Your task to perform on an android device: Check the settings for the Twitter app Image 0: 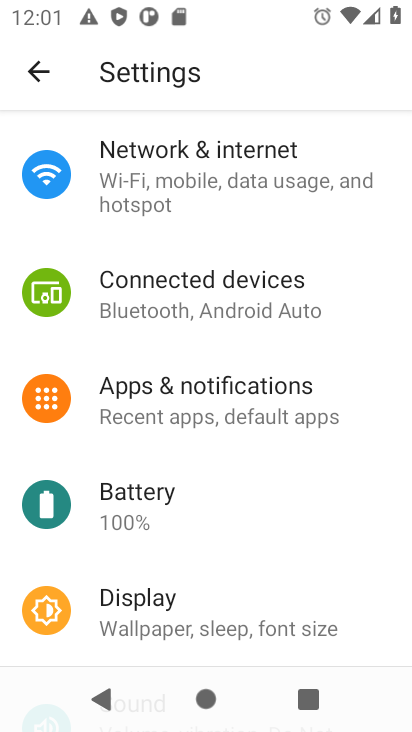
Step 0: press home button
Your task to perform on an android device: Check the settings for the Twitter app Image 1: 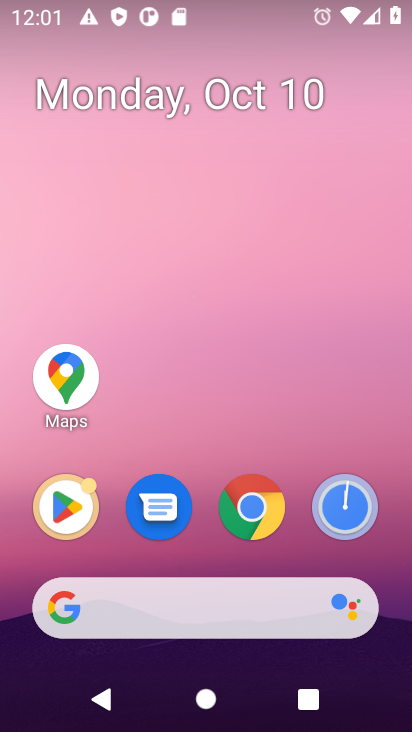
Step 1: task complete